Your task to perform on an android device: turn smart compose on in the gmail app Image 0: 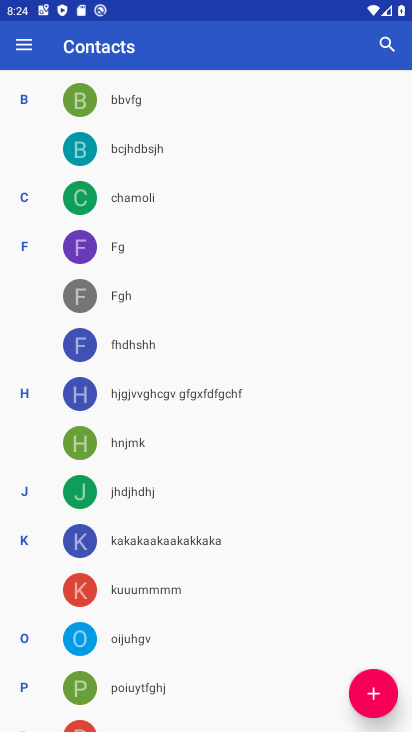
Step 0: press home button
Your task to perform on an android device: turn smart compose on in the gmail app Image 1: 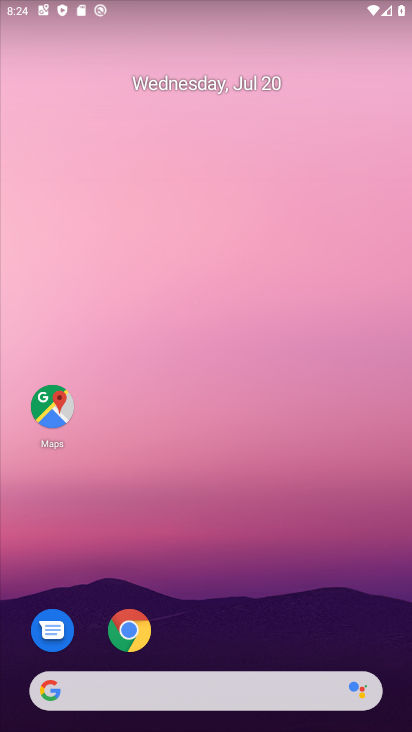
Step 1: drag from (405, 697) to (351, 52)
Your task to perform on an android device: turn smart compose on in the gmail app Image 2: 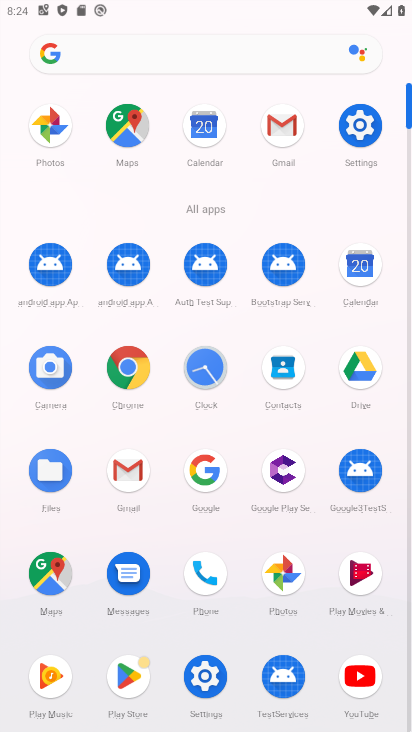
Step 2: click (132, 478)
Your task to perform on an android device: turn smart compose on in the gmail app Image 3: 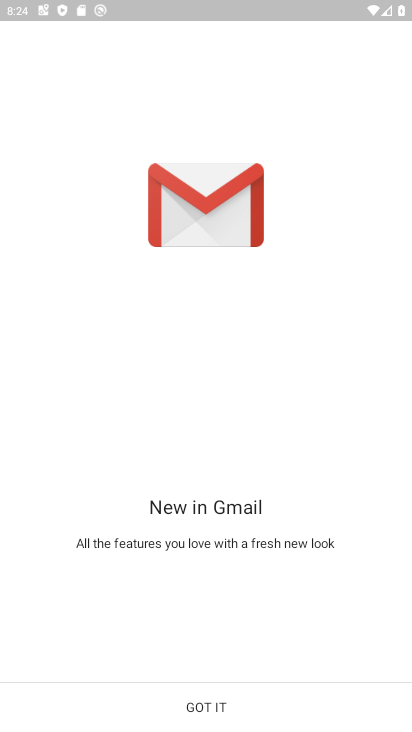
Step 3: click (224, 704)
Your task to perform on an android device: turn smart compose on in the gmail app Image 4: 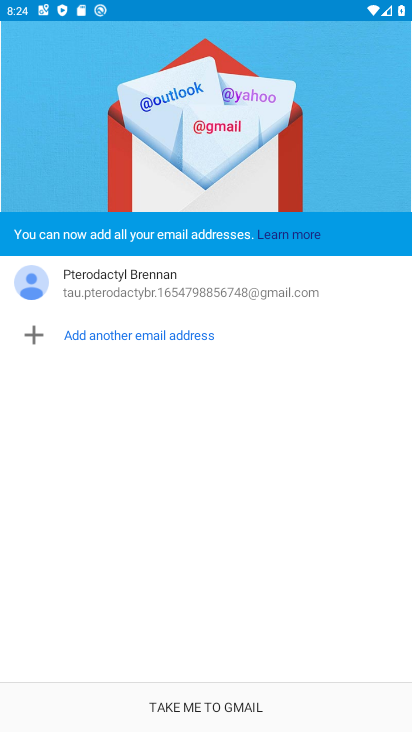
Step 4: click (224, 704)
Your task to perform on an android device: turn smart compose on in the gmail app Image 5: 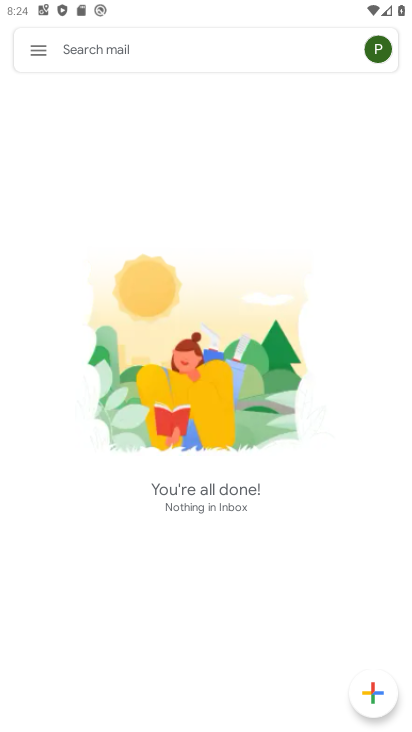
Step 5: click (31, 46)
Your task to perform on an android device: turn smart compose on in the gmail app Image 6: 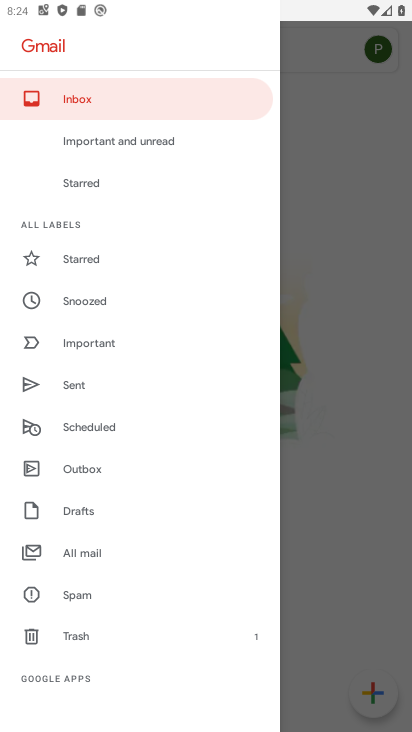
Step 6: drag from (172, 677) to (191, 297)
Your task to perform on an android device: turn smart compose on in the gmail app Image 7: 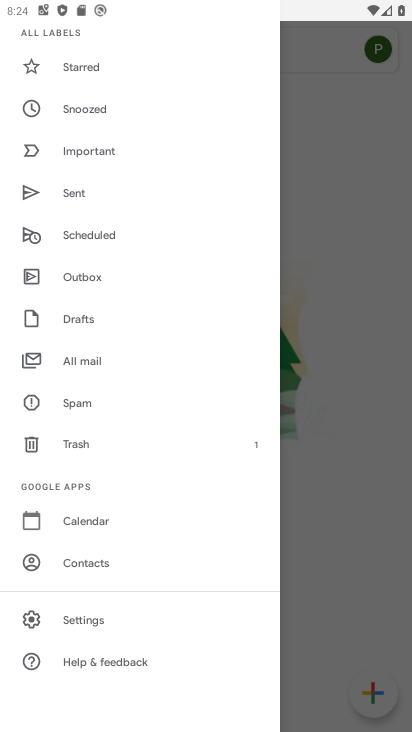
Step 7: click (64, 613)
Your task to perform on an android device: turn smart compose on in the gmail app Image 8: 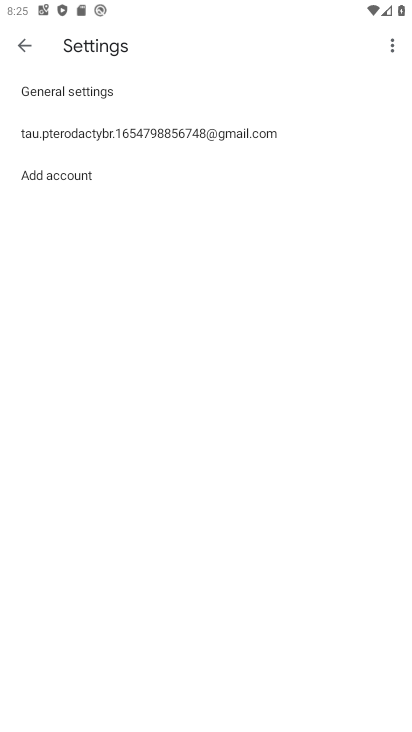
Step 8: click (92, 128)
Your task to perform on an android device: turn smart compose on in the gmail app Image 9: 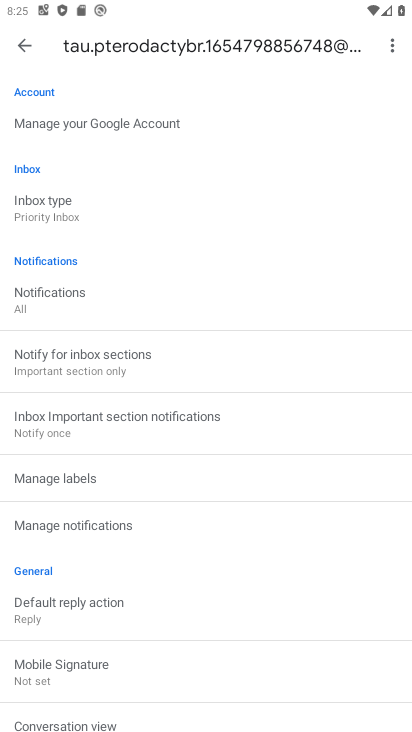
Step 9: drag from (368, 708) to (353, 212)
Your task to perform on an android device: turn smart compose on in the gmail app Image 10: 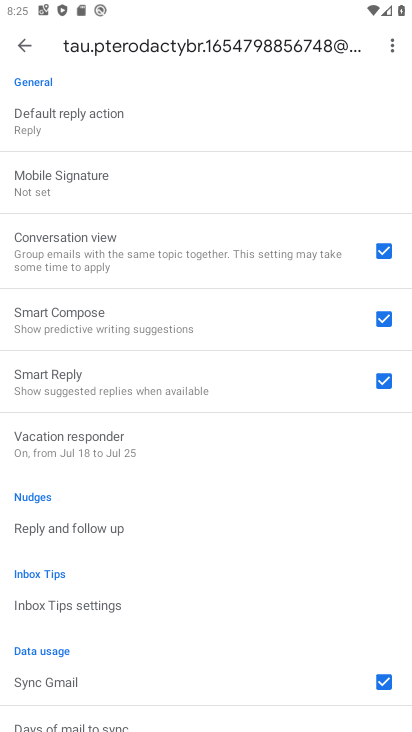
Step 10: click (84, 311)
Your task to perform on an android device: turn smart compose on in the gmail app Image 11: 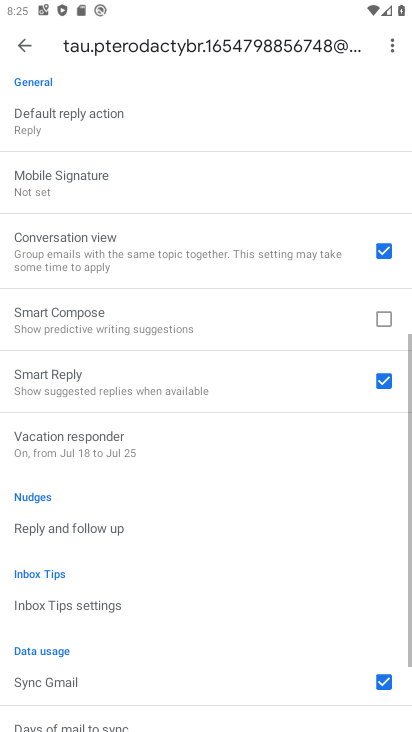
Step 11: click (84, 311)
Your task to perform on an android device: turn smart compose on in the gmail app Image 12: 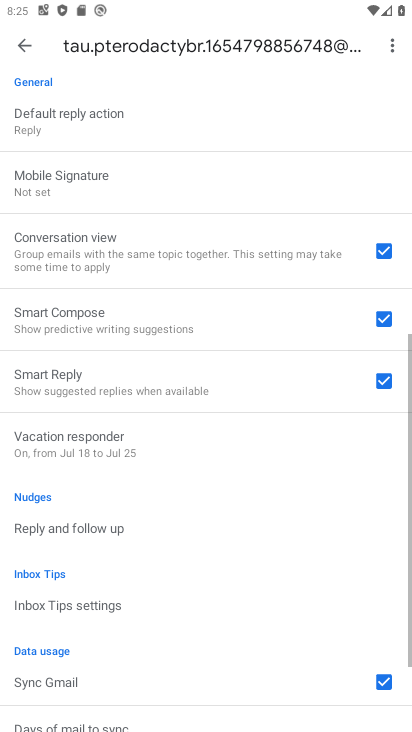
Step 12: task complete